Your task to perform on an android device: What is the news today? Image 0: 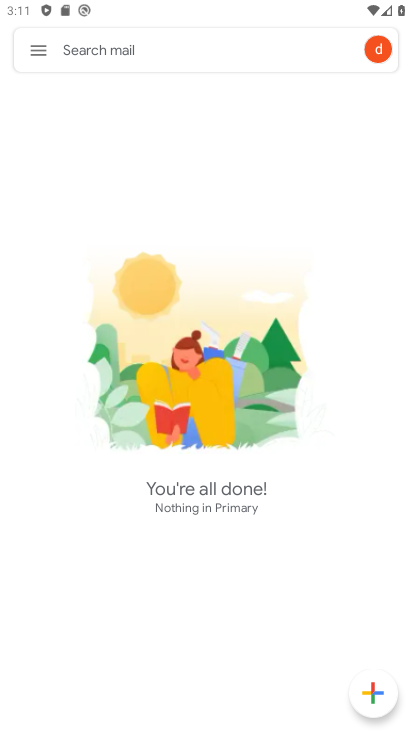
Step 0: drag from (220, 693) to (200, 278)
Your task to perform on an android device: What is the news today? Image 1: 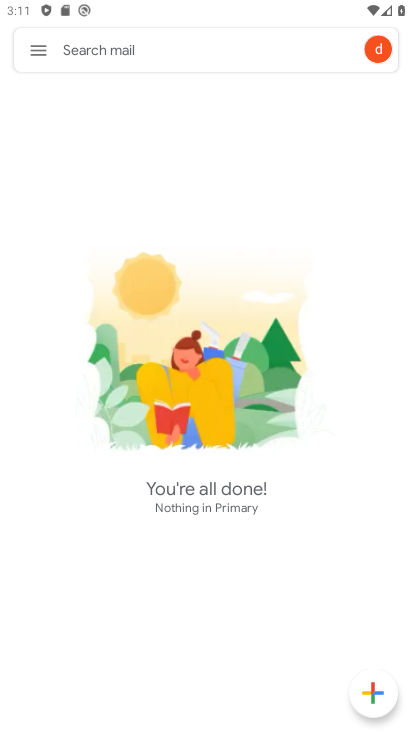
Step 1: task complete